Your task to perform on an android device: Is it going to rain today? Image 0: 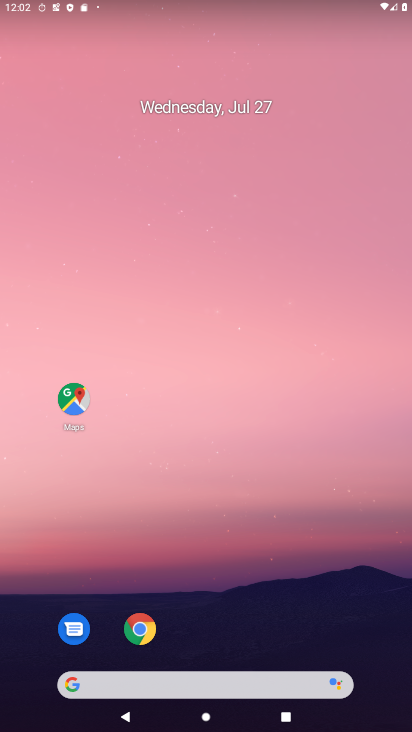
Step 0: drag from (390, 621) to (156, 60)
Your task to perform on an android device: Is it going to rain today? Image 1: 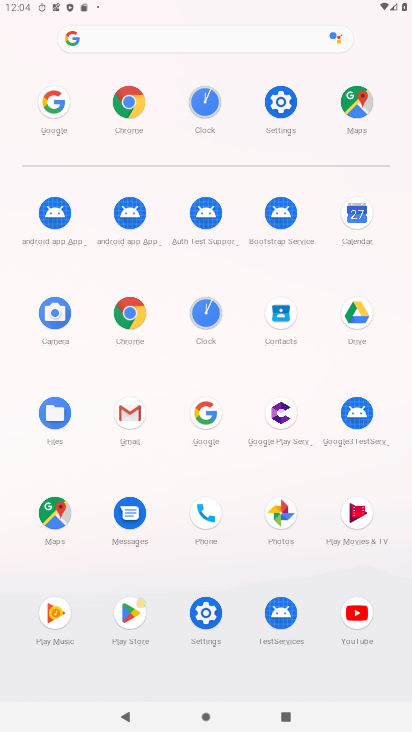
Step 1: click (209, 415)
Your task to perform on an android device: Is it going to rain today? Image 2: 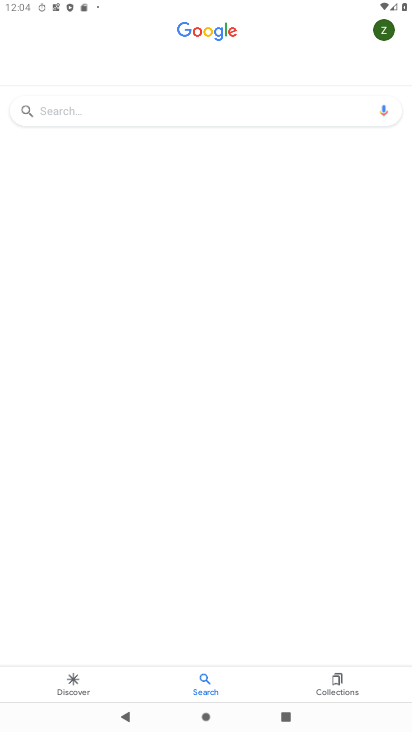
Step 2: click (83, 112)
Your task to perform on an android device: Is it going to rain today? Image 3: 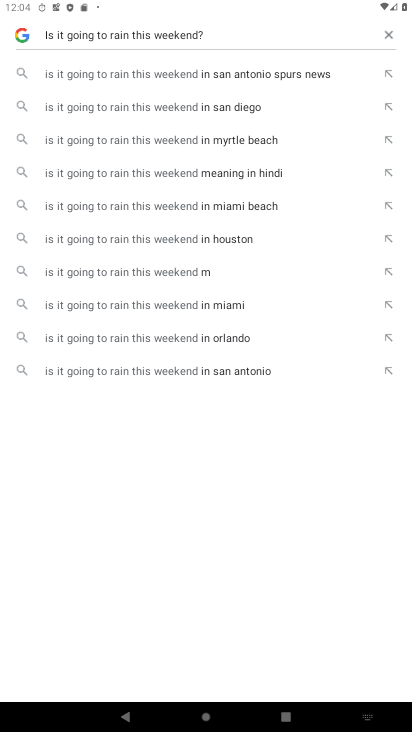
Step 3: press back button
Your task to perform on an android device: Is it going to rain today? Image 4: 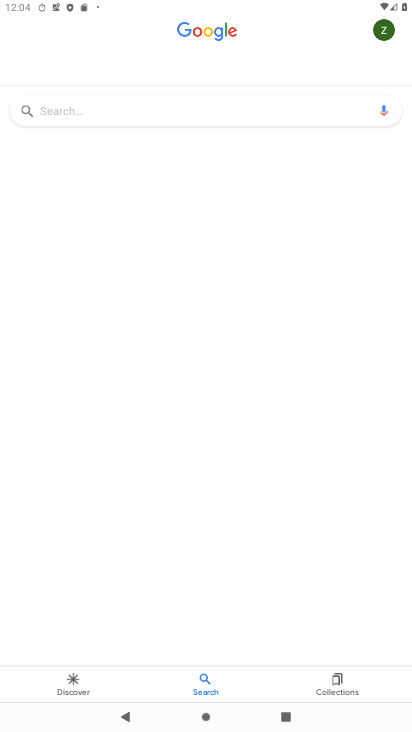
Step 4: click (159, 109)
Your task to perform on an android device: Is it going to rain today? Image 5: 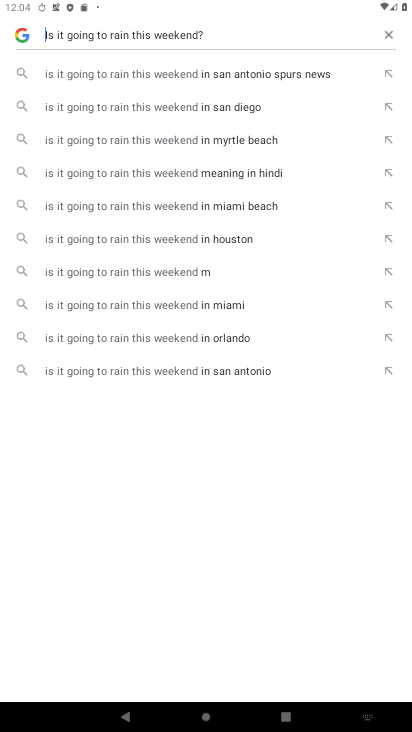
Step 5: click (391, 35)
Your task to perform on an android device: Is it going to rain today? Image 6: 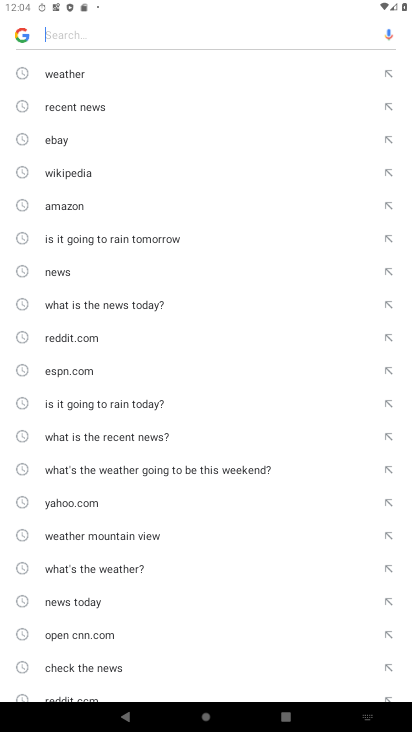
Step 6: type "Is it going to rain today?"
Your task to perform on an android device: Is it going to rain today? Image 7: 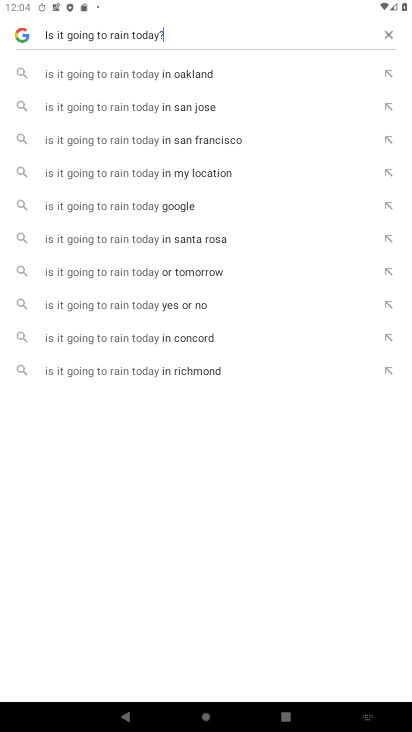
Step 7: click (128, 216)
Your task to perform on an android device: Is it going to rain today? Image 8: 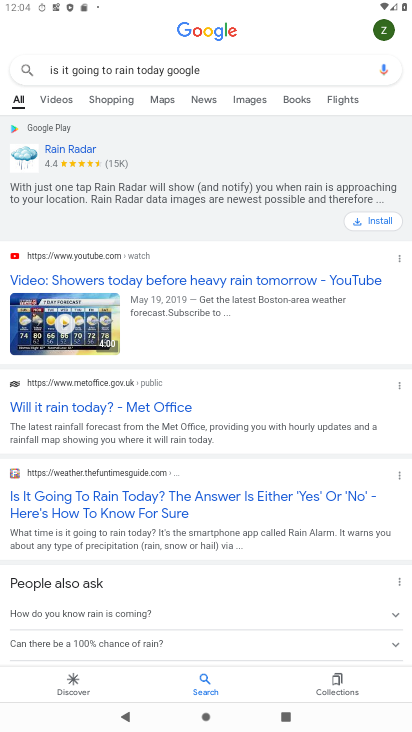
Step 8: task complete